Your task to perform on an android device: change notifications settings Image 0: 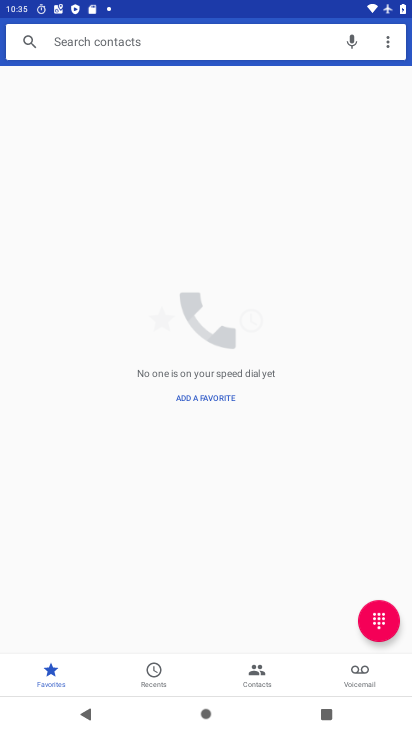
Step 0: press home button
Your task to perform on an android device: change notifications settings Image 1: 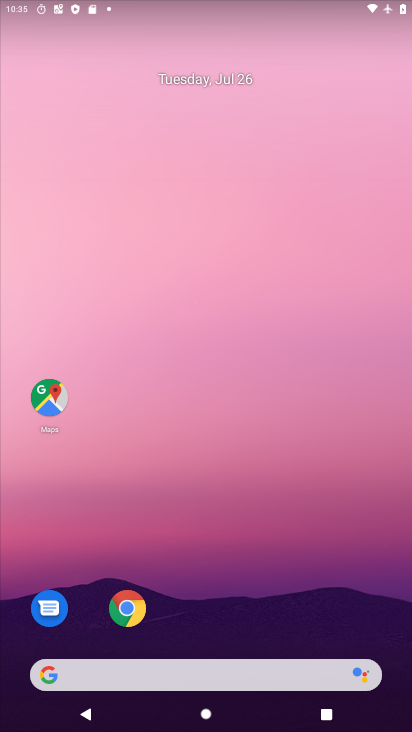
Step 1: drag from (242, 601) to (188, 160)
Your task to perform on an android device: change notifications settings Image 2: 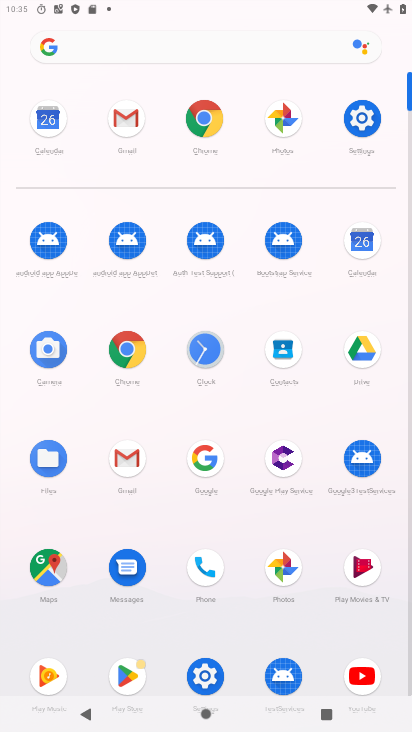
Step 2: click (372, 124)
Your task to perform on an android device: change notifications settings Image 3: 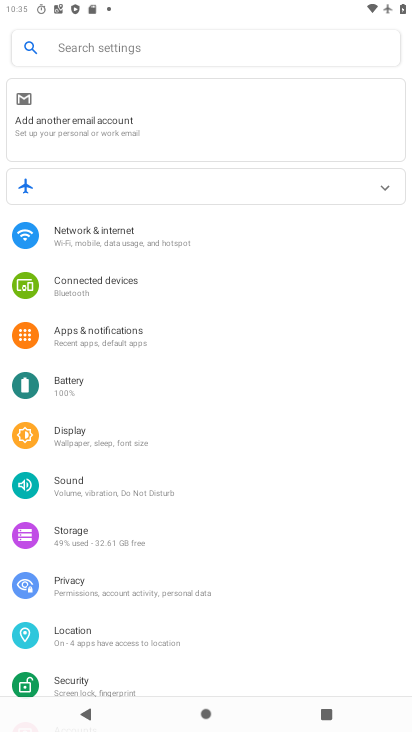
Step 3: click (135, 339)
Your task to perform on an android device: change notifications settings Image 4: 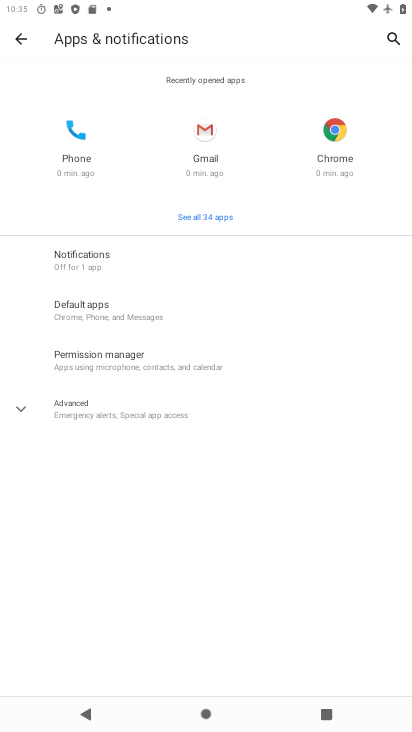
Step 4: click (103, 265)
Your task to perform on an android device: change notifications settings Image 5: 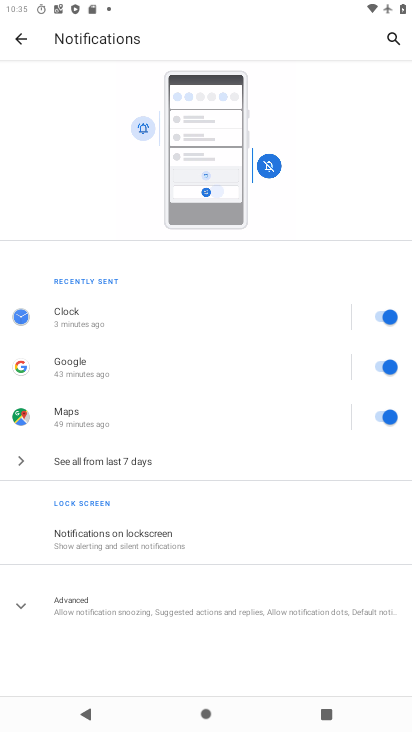
Step 5: drag from (181, 592) to (181, 299)
Your task to perform on an android device: change notifications settings Image 6: 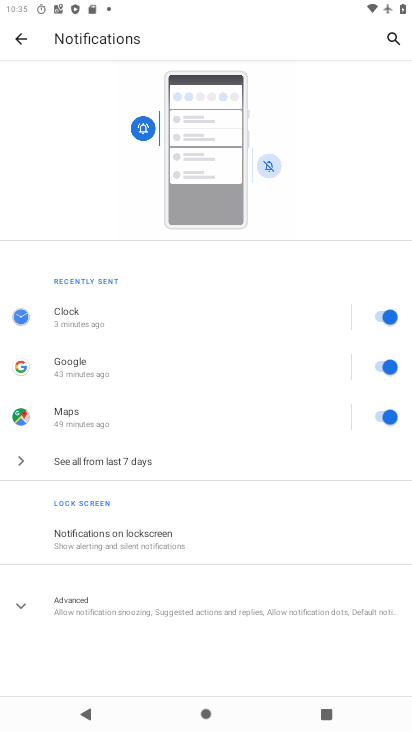
Step 6: click (146, 605)
Your task to perform on an android device: change notifications settings Image 7: 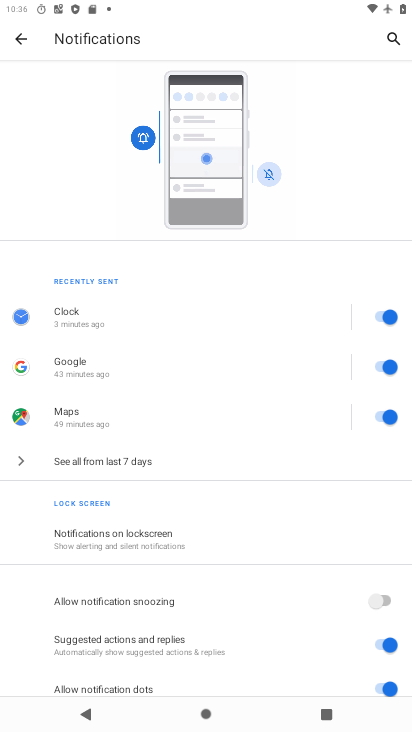
Step 7: drag from (181, 603) to (184, 259)
Your task to perform on an android device: change notifications settings Image 8: 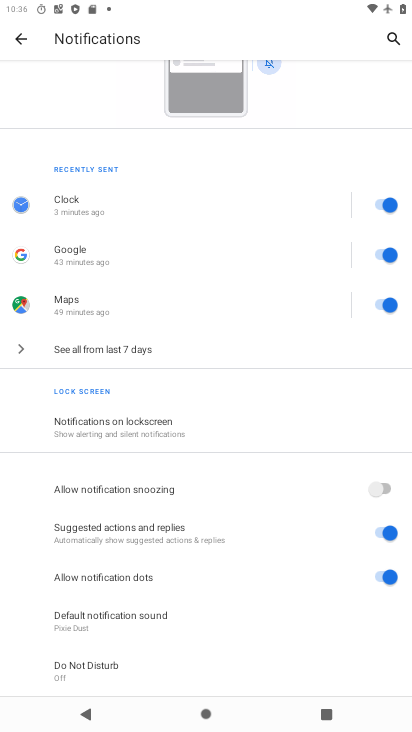
Step 8: click (186, 433)
Your task to perform on an android device: change notifications settings Image 9: 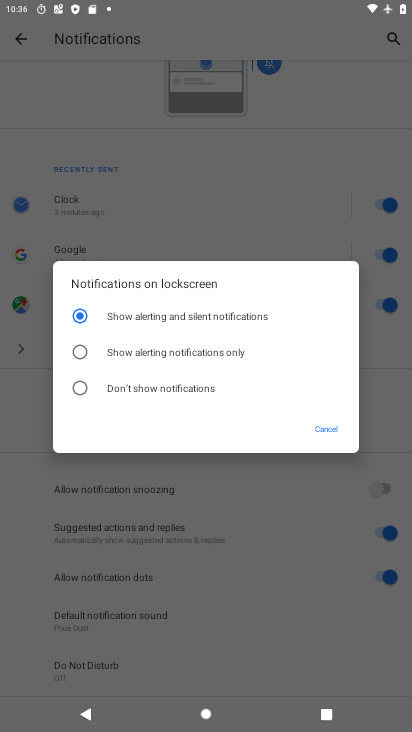
Step 9: click (162, 399)
Your task to perform on an android device: change notifications settings Image 10: 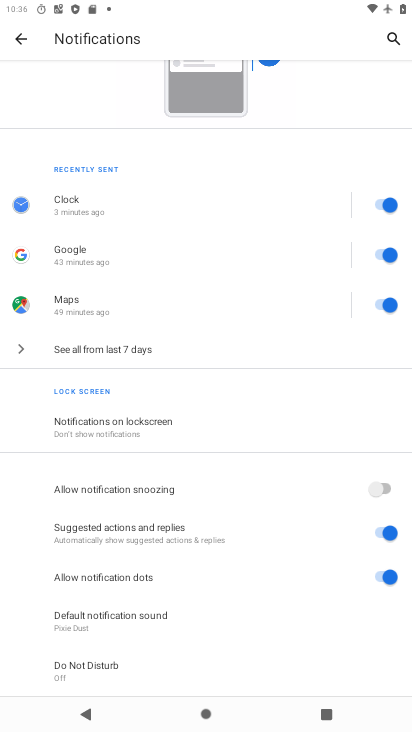
Step 10: task complete